Your task to perform on an android device: Show me popular games on the Play Store Image 0: 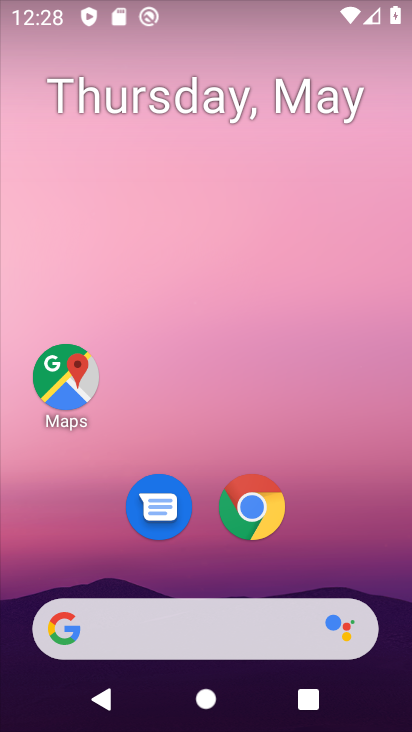
Step 0: drag from (282, 566) to (254, 131)
Your task to perform on an android device: Show me popular games on the Play Store Image 1: 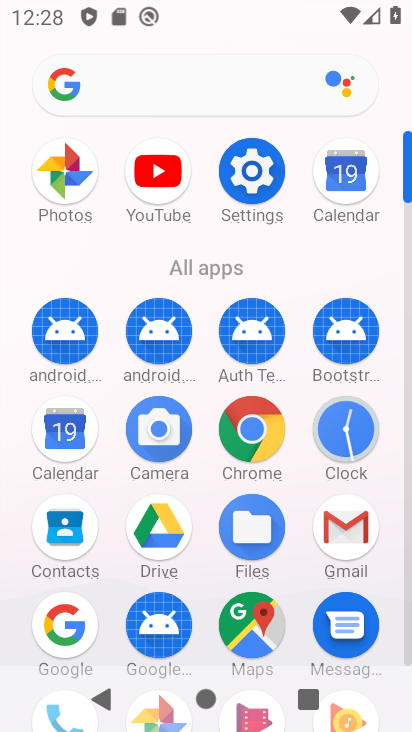
Step 1: drag from (215, 615) to (204, 209)
Your task to perform on an android device: Show me popular games on the Play Store Image 2: 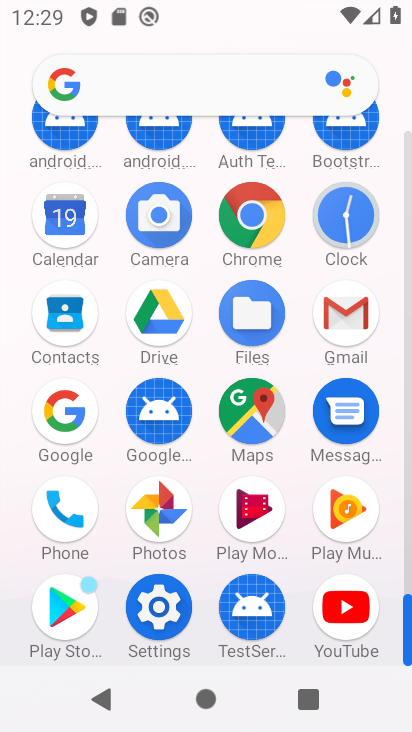
Step 2: click (63, 615)
Your task to perform on an android device: Show me popular games on the Play Store Image 3: 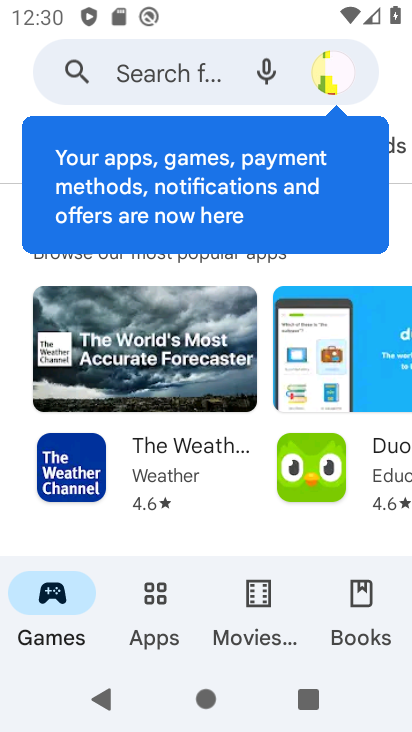
Step 3: task complete